Your task to perform on an android device: turn off wifi Image 0: 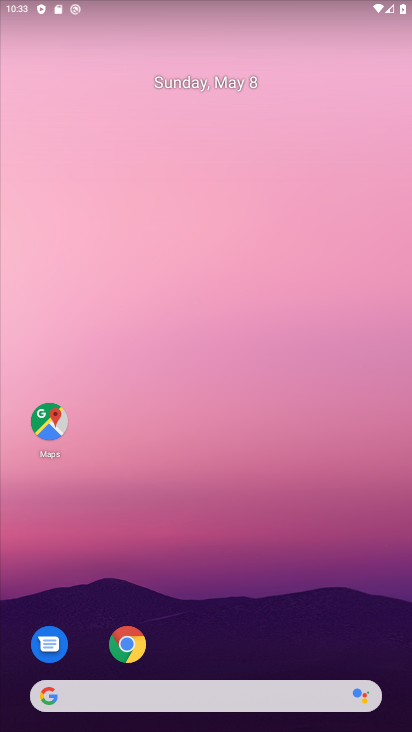
Step 0: drag from (242, 633) to (239, 79)
Your task to perform on an android device: turn off wifi Image 1: 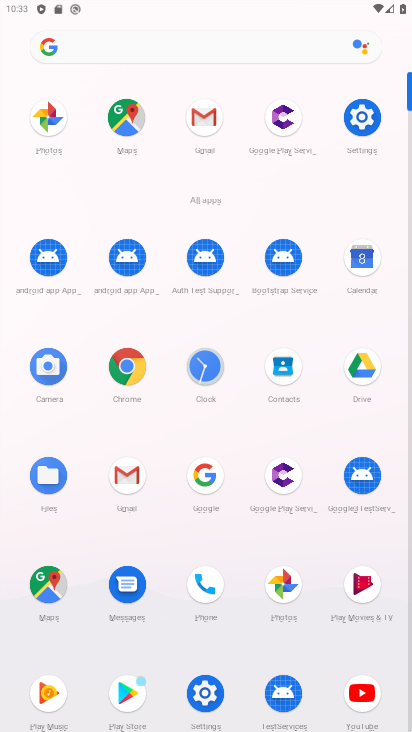
Step 1: click (362, 116)
Your task to perform on an android device: turn off wifi Image 2: 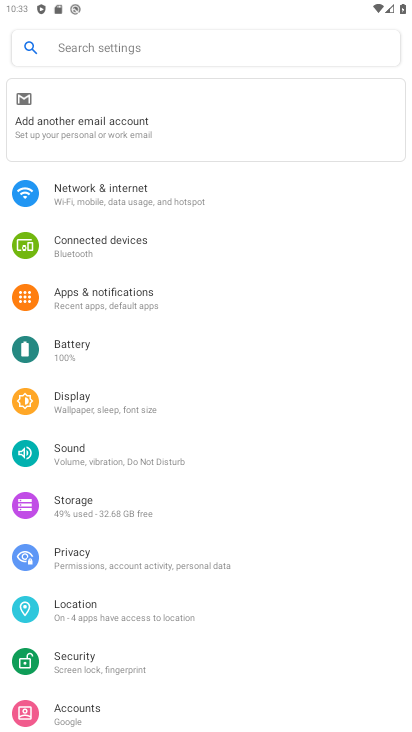
Step 2: click (130, 198)
Your task to perform on an android device: turn off wifi Image 3: 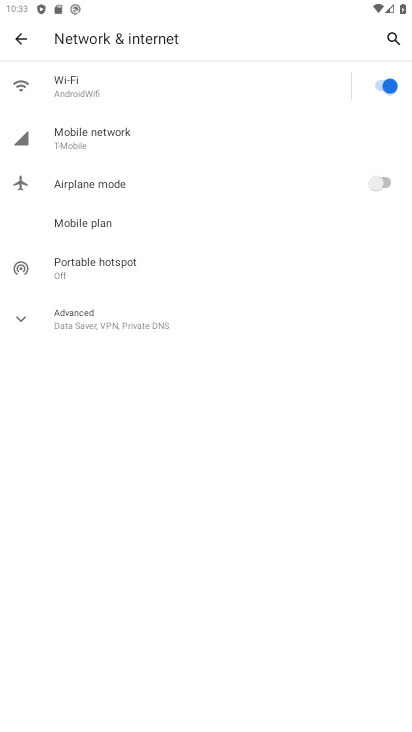
Step 3: click (384, 77)
Your task to perform on an android device: turn off wifi Image 4: 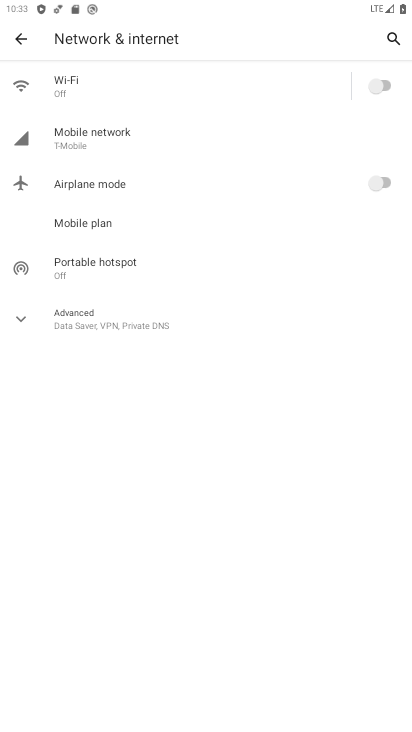
Step 4: task complete